Your task to perform on an android device: When is my next appointment? Image 0: 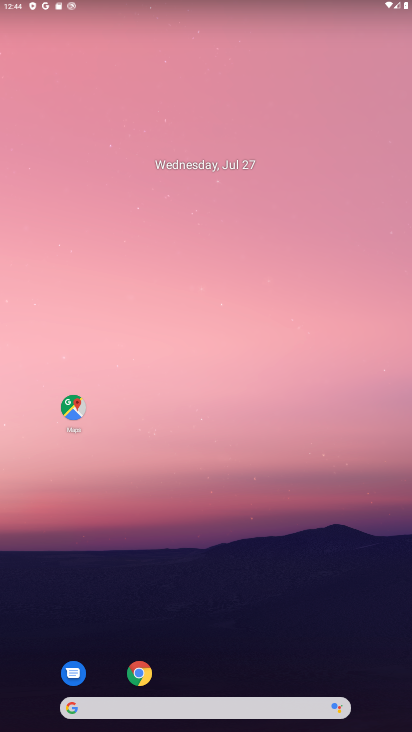
Step 0: drag from (213, 626) to (222, 1)
Your task to perform on an android device: When is my next appointment? Image 1: 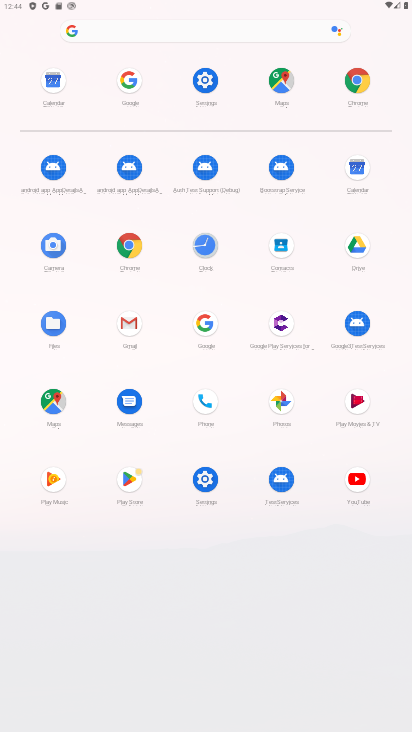
Step 1: click (354, 170)
Your task to perform on an android device: When is my next appointment? Image 2: 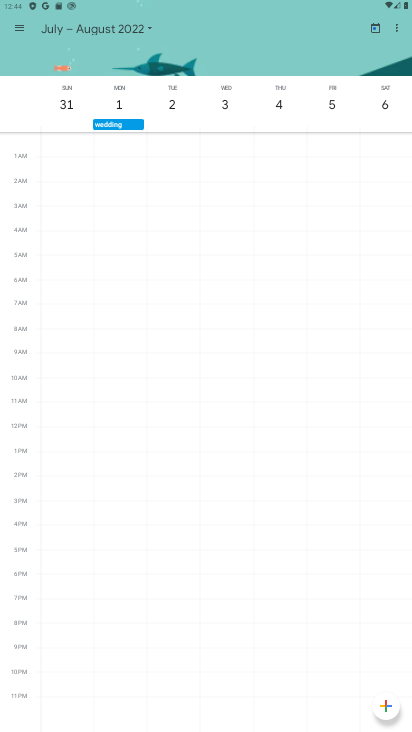
Step 2: click (18, 24)
Your task to perform on an android device: When is my next appointment? Image 3: 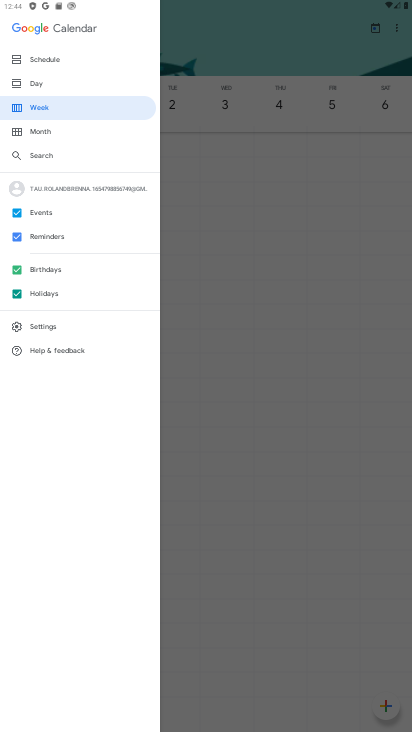
Step 3: click (24, 60)
Your task to perform on an android device: When is my next appointment? Image 4: 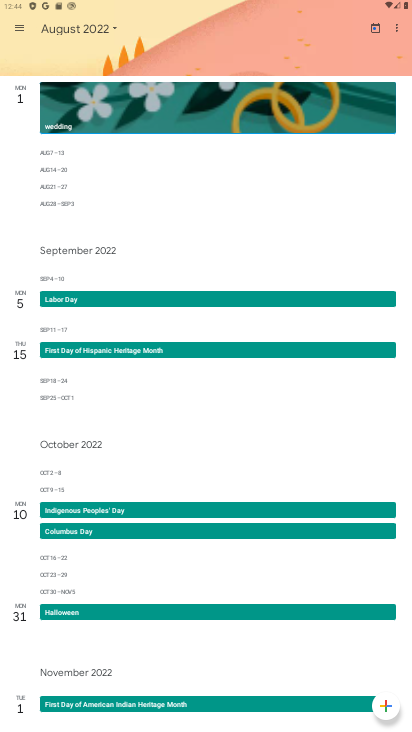
Step 4: click (369, 29)
Your task to perform on an android device: When is my next appointment? Image 5: 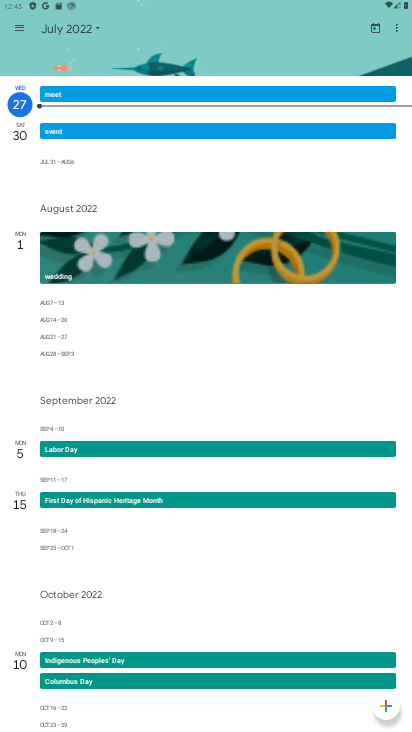
Step 5: click (75, 131)
Your task to perform on an android device: When is my next appointment? Image 6: 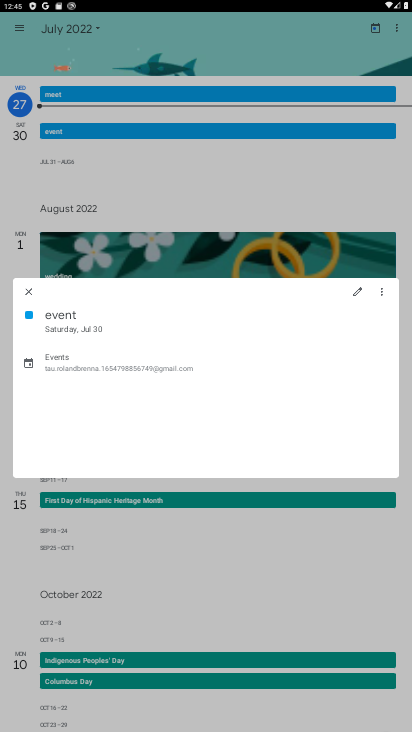
Step 6: task complete